Your task to perform on an android device: toggle javascript in the chrome app Image 0: 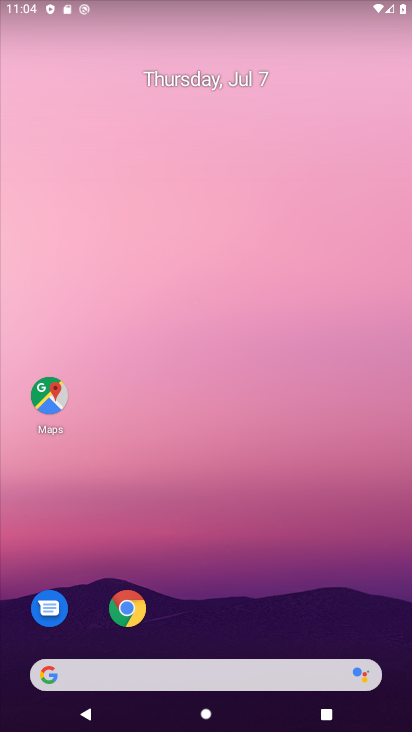
Step 0: click (113, 628)
Your task to perform on an android device: toggle javascript in the chrome app Image 1: 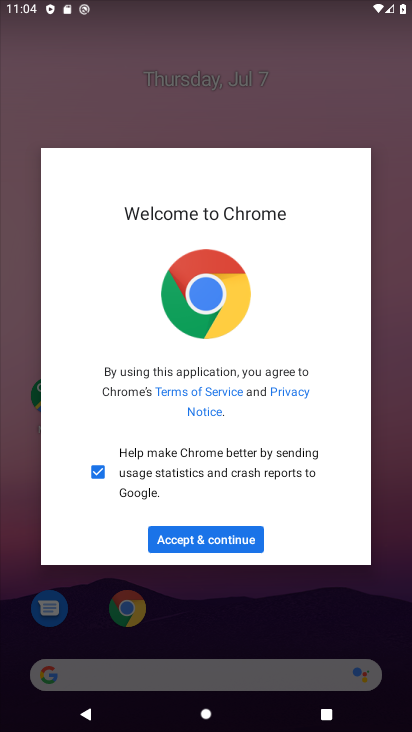
Step 1: click (204, 544)
Your task to perform on an android device: toggle javascript in the chrome app Image 2: 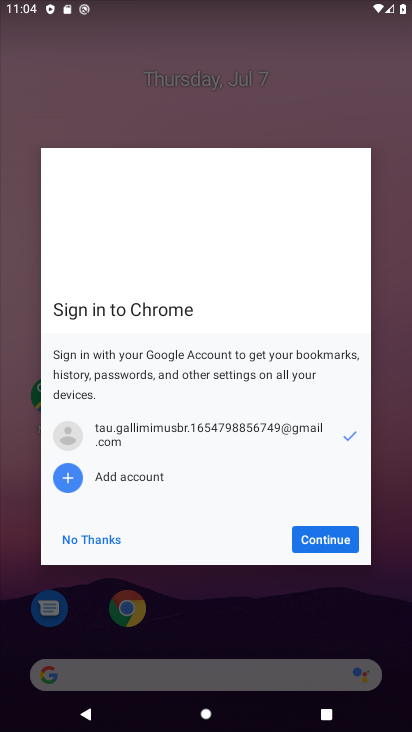
Step 2: click (323, 543)
Your task to perform on an android device: toggle javascript in the chrome app Image 3: 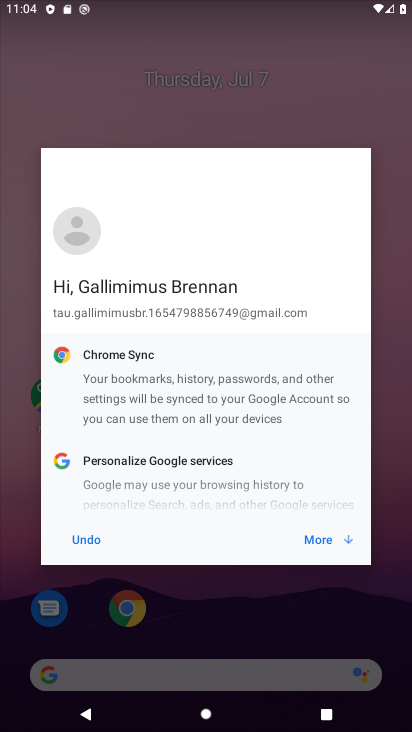
Step 3: click (323, 543)
Your task to perform on an android device: toggle javascript in the chrome app Image 4: 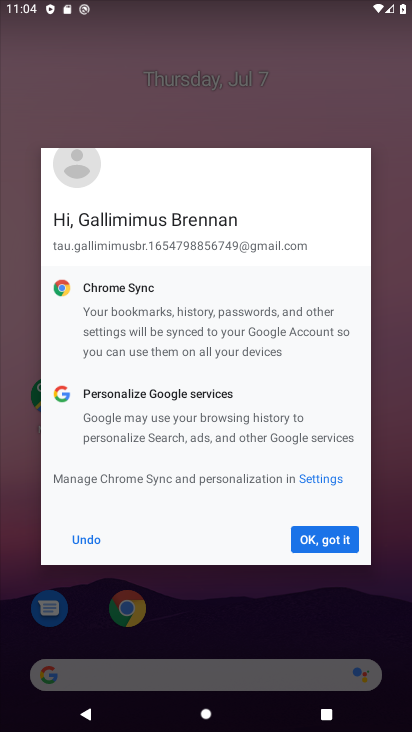
Step 4: click (323, 543)
Your task to perform on an android device: toggle javascript in the chrome app Image 5: 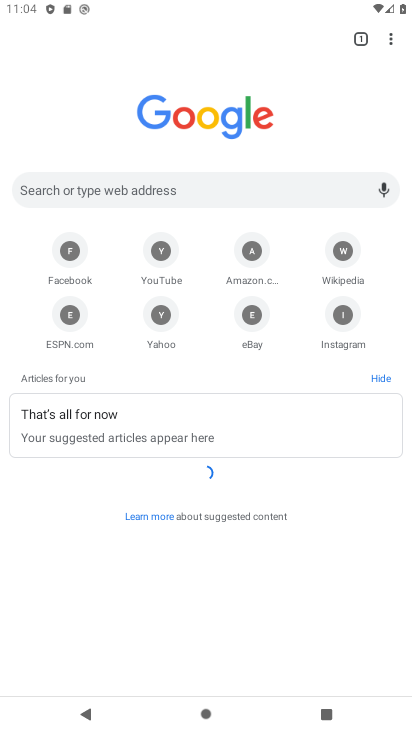
Step 5: click (384, 48)
Your task to perform on an android device: toggle javascript in the chrome app Image 6: 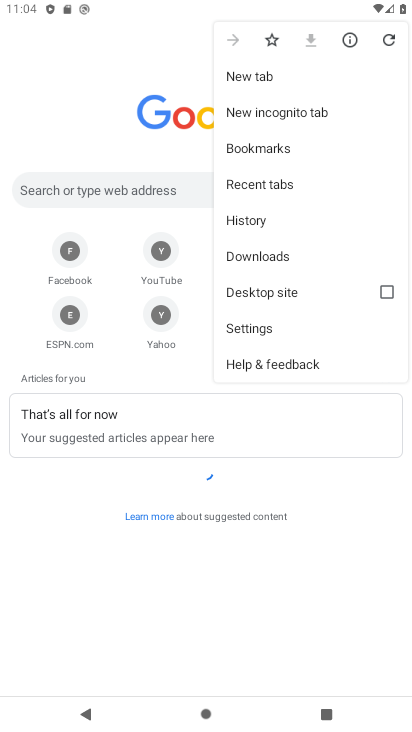
Step 6: click (291, 326)
Your task to perform on an android device: toggle javascript in the chrome app Image 7: 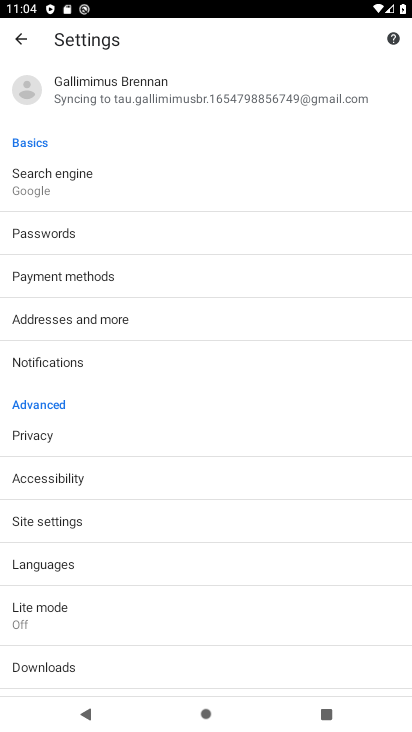
Step 7: click (127, 521)
Your task to perform on an android device: toggle javascript in the chrome app Image 8: 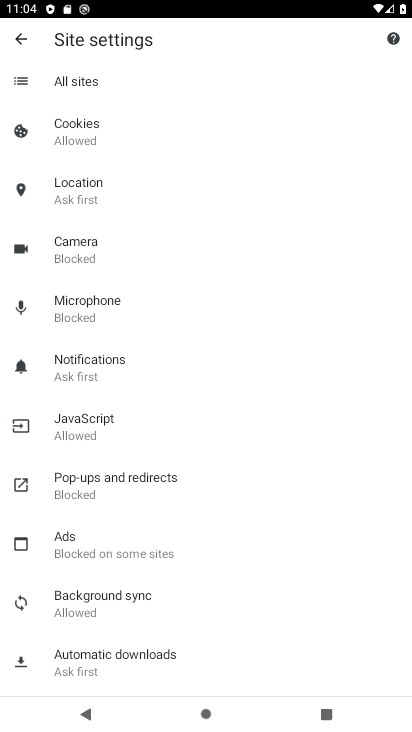
Step 8: click (178, 433)
Your task to perform on an android device: toggle javascript in the chrome app Image 9: 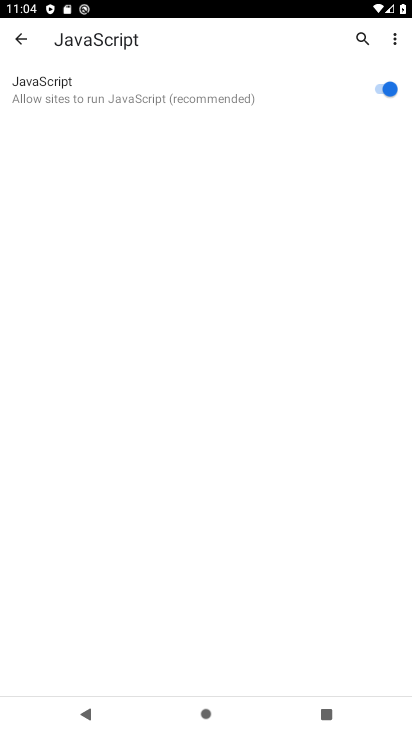
Step 9: click (350, 100)
Your task to perform on an android device: toggle javascript in the chrome app Image 10: 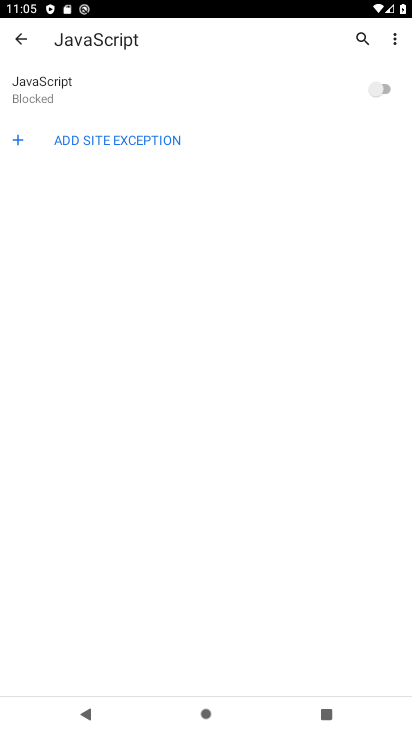
Step 10: task complete